Your task to perform on an android device: Go to Google Image 0: 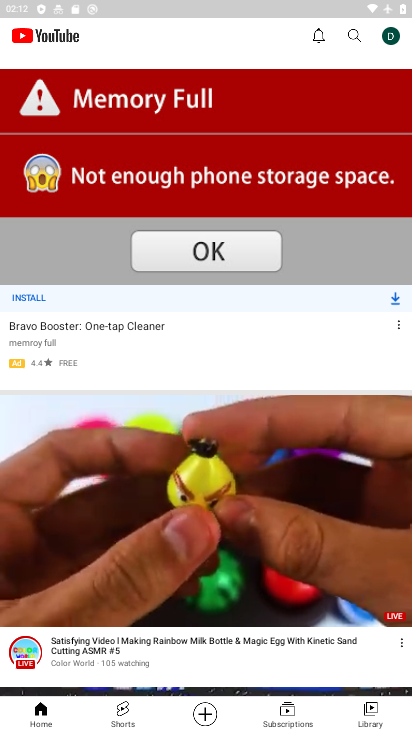
Step 0: press home button
Your task to perform on an android device: Go to Google Image 1: 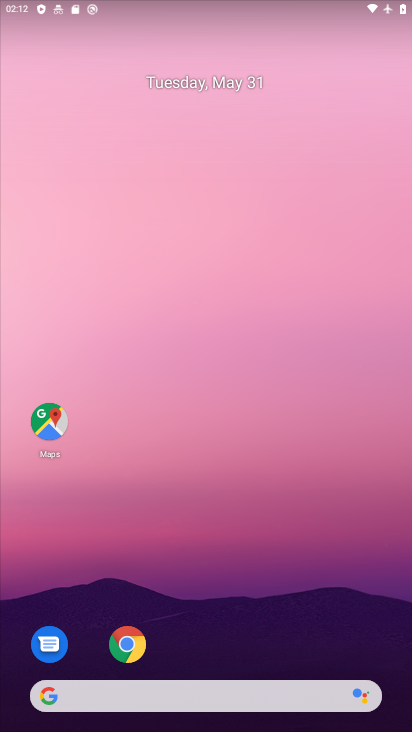
Step 1: drag from (269, 325) to (267, 83)
Your task to perform on an android device: Go to Google Image 2: 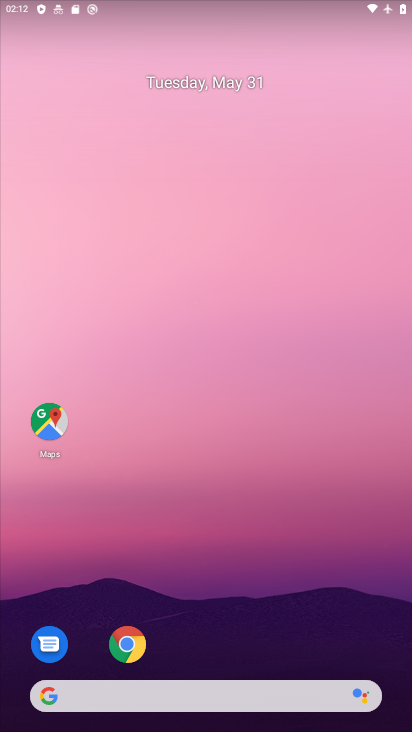
Step 2: drag from (287, 566) to (240, 78)
Your task to perform on an android device: Go to Google Image 3: 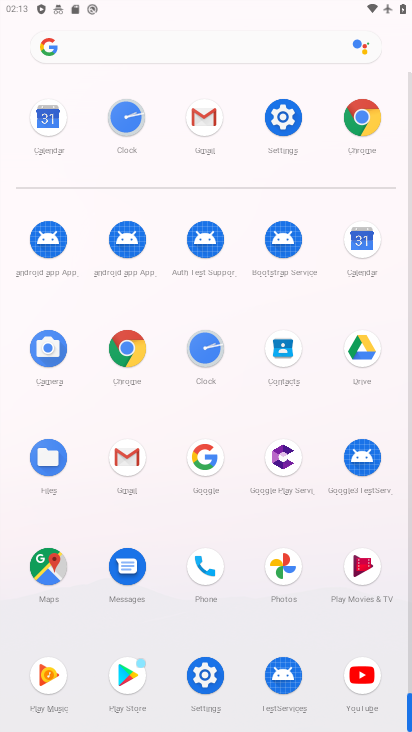
Step 3: click (208, 460)
Your task to perform on an android device: Go to Google Image 4: 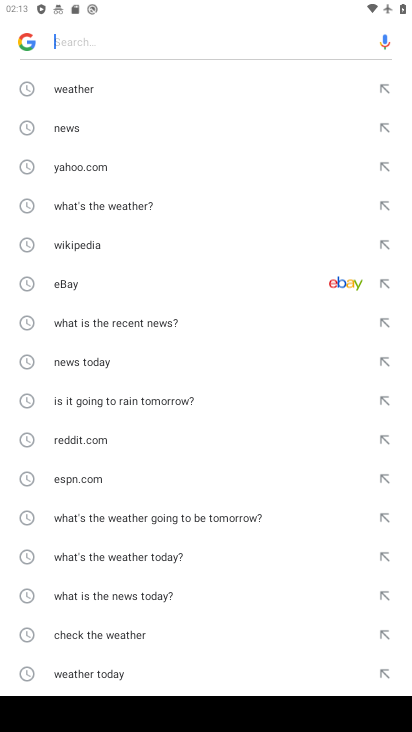
Step 4: task complete